Your task to perform on an android device: turn off notifications in google photos Image 0: 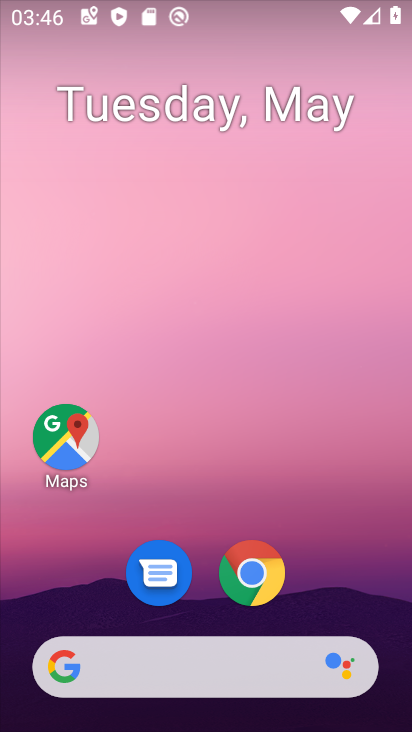
Step 0: drag from (183, 623) to (266, 48)
Your task to perform on an android device: turn off notifications in google photos Image 1: 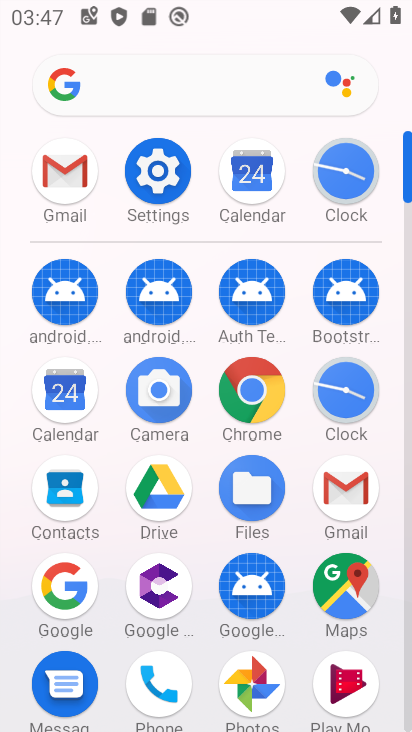
Step 1: click (246, 682)
Your task to perform on an android device: turn off notifications in google photos Image 2: 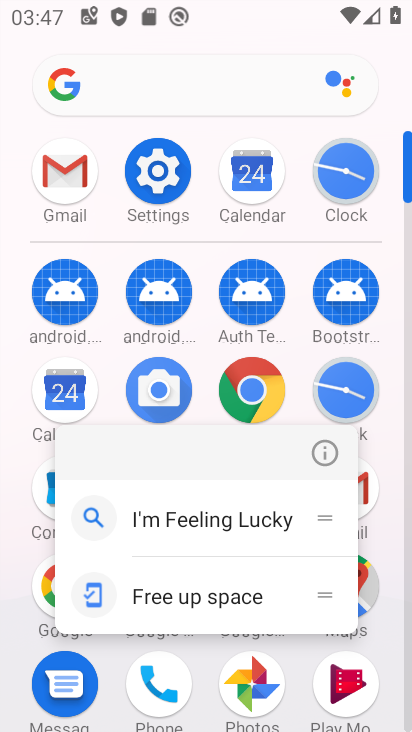
Step 2: click (320, 453)
Your task to perform on an android device: turn off notifications in google photos Image 3: 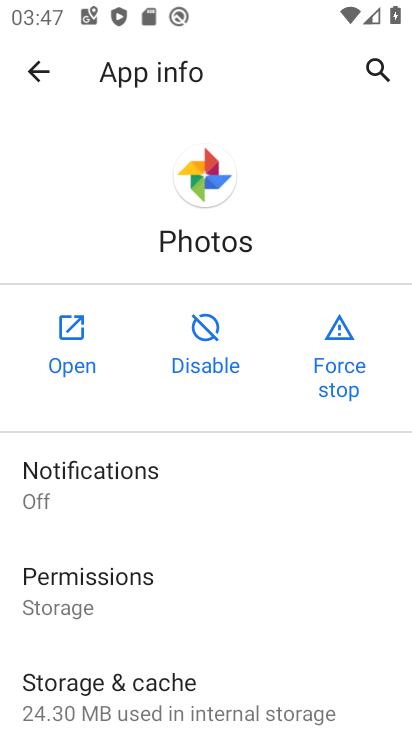
Step 3: click (115, 476)
Your task to perform on an android device: turn off notifications in google photos Image 4: 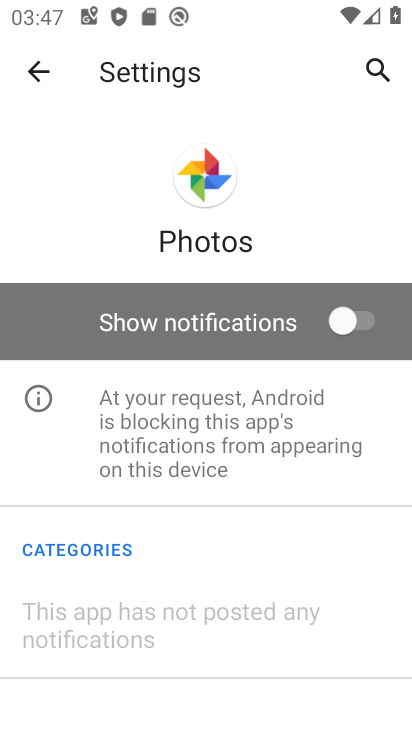
Step 4: task complete